Your task to perform on an android device: change keyboard looks Image 0: 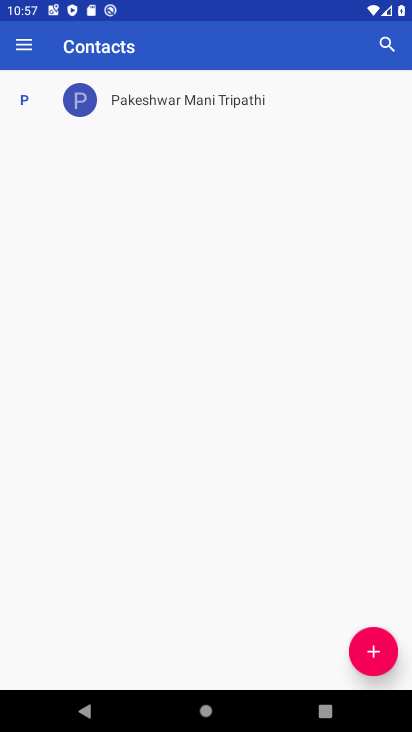
Step 0: press home button
Your task to perform on an android device: change keyboard looks Image 1: 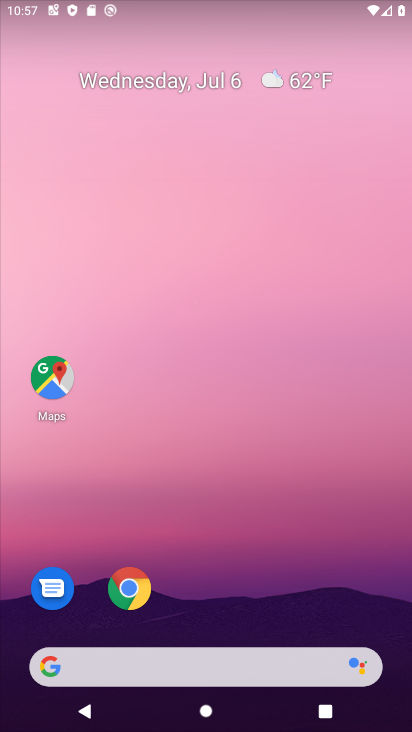
Step 1: drag from (395, 617) to (373, 45)
Your task to perform on an android device: change keyboard looks Image 2: 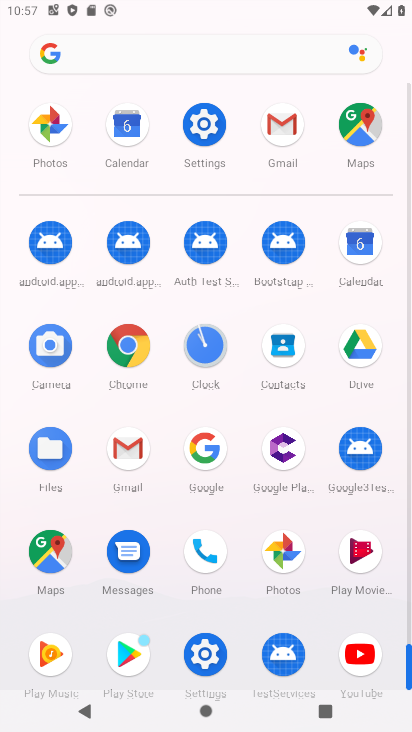
Step 2: click (203, 651)
Your task to perform on an android device: change keyboard looks Image 3: 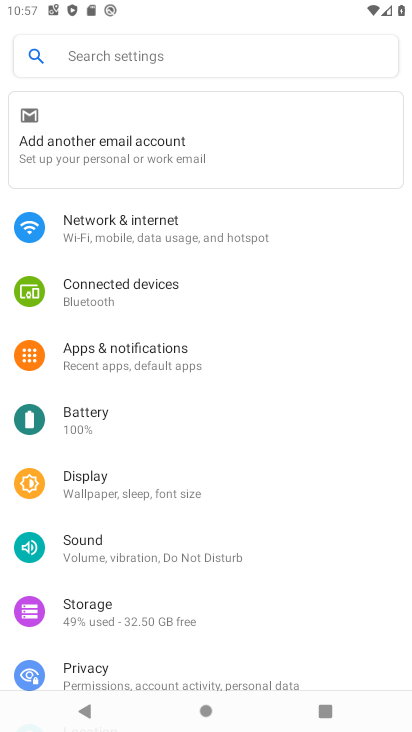
Step 3: drag from (332, 649) to (324, 206)
Your task to perform on an android device: change keyboard looks Image 4: 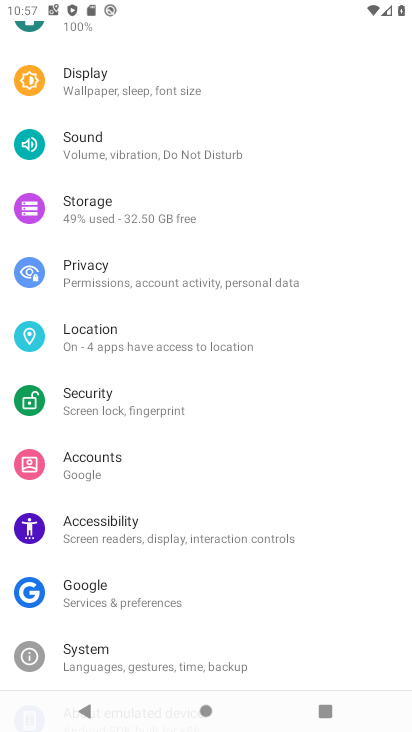
Step 4: drag from (296, 626) to (319, 375)
Your task to perform on an android device: change keyboard looks Image 5: 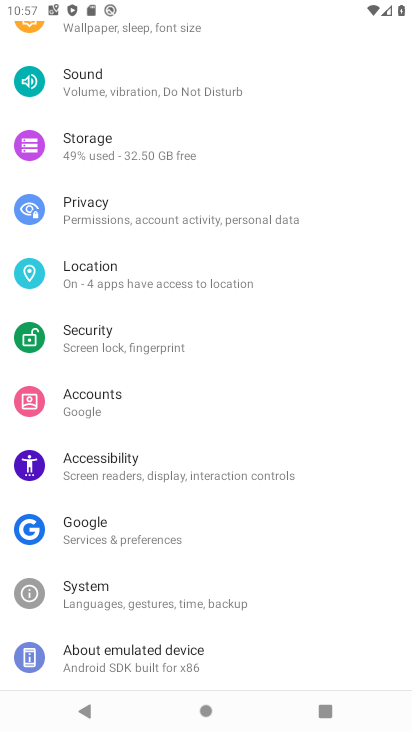
Step 5: click (72, 597)
Your task to perform on an android device: change keyboard looks Image 6: 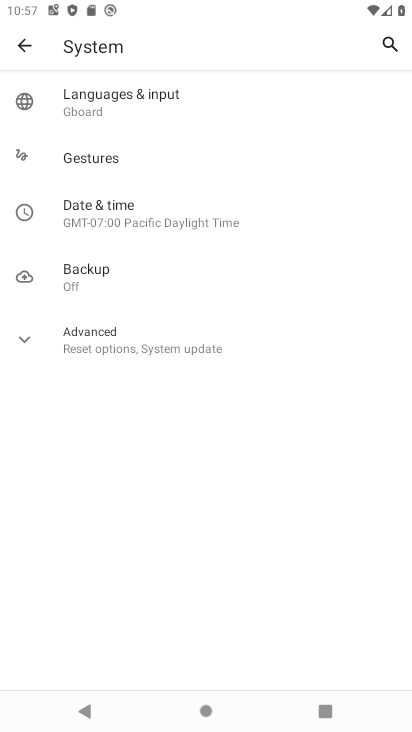
Step 6: click (99, 100)
Your task to perform on an android device: change keyboard looks Image 7: 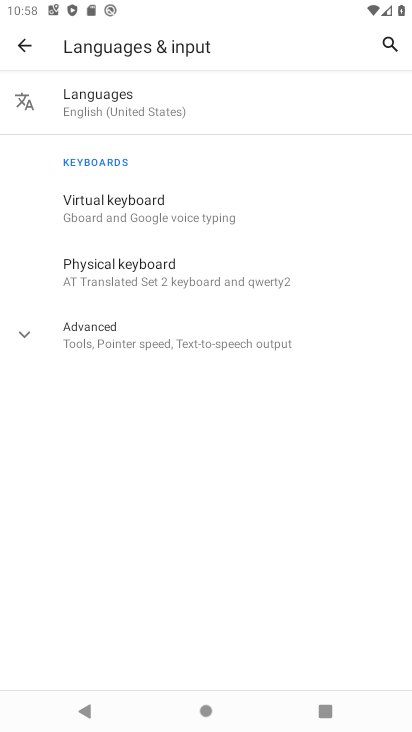
Step 7: click (114, 272)
Your task to perform on an android device: change keyboard looks Image 8: 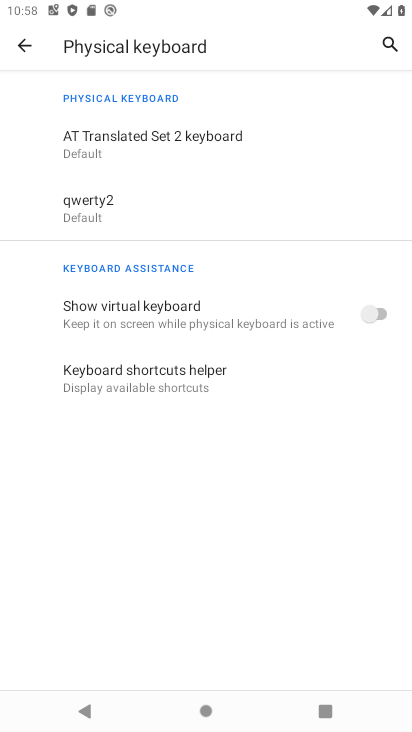
Step 8: click (87, 200)
Your task to perform on an android device: change keyboard looks Image 9: 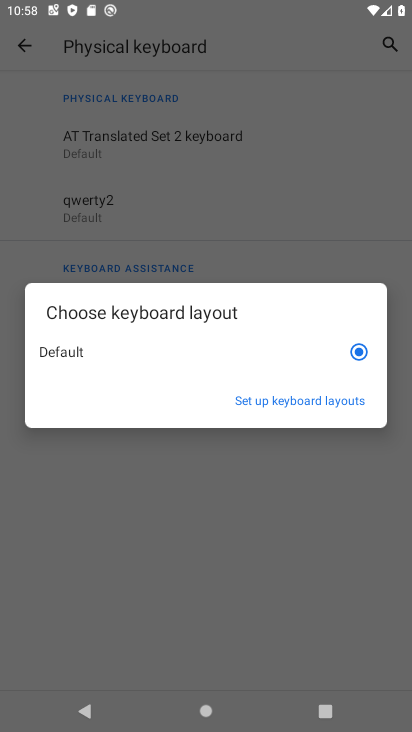
Step 9: click (297, 401)
Your task to perform on an android device: change keyboard looks Image 10: 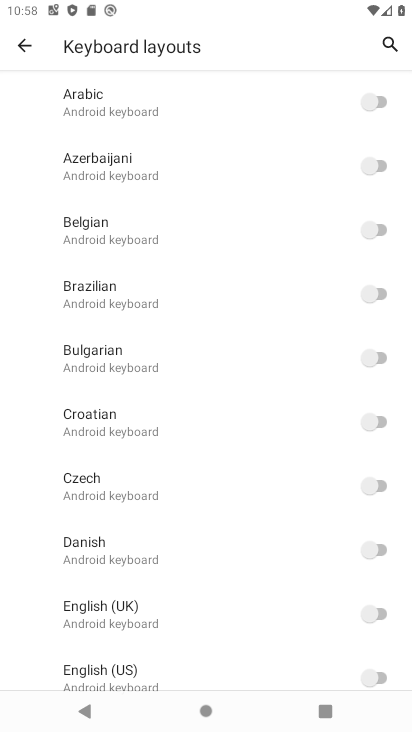
Step 10: click (373, 612)
Your task to perform on an android device: change keyboard looks Image 11: 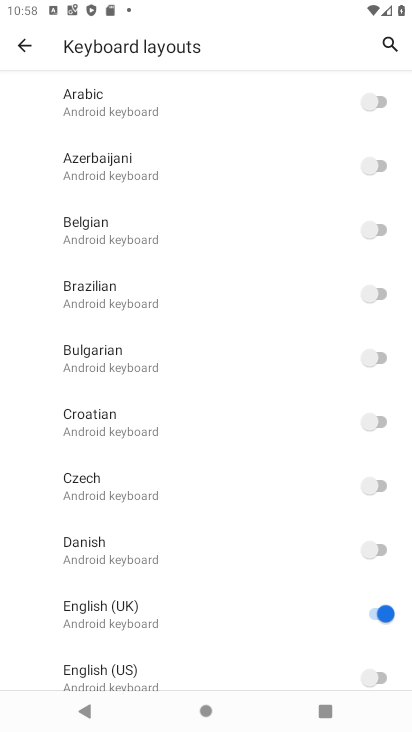
Step 11: task complete